Your task to perform on an android device: What is the recent news? Image 0: 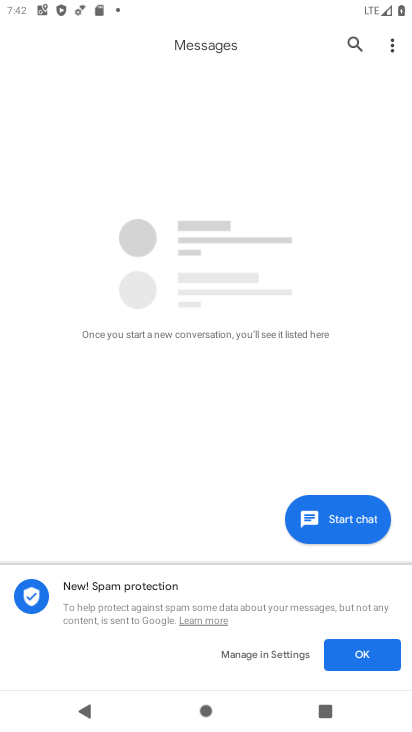
Step 0: press home button
Your task to perform on an android device: What is the recent news? Image 1: 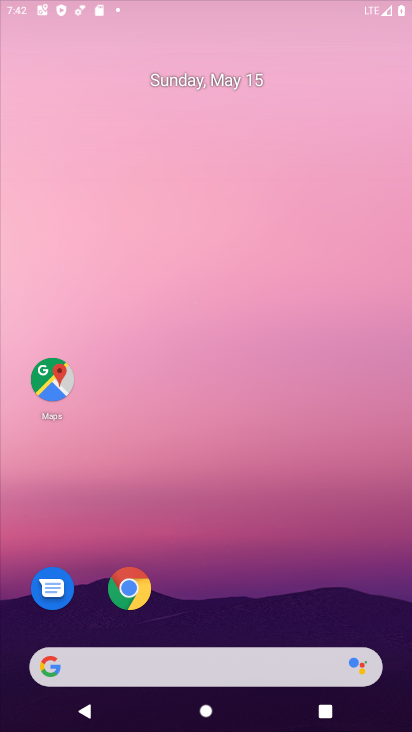
Step 1: drag from (352, 599) to (226, 34)
Your task to perform on an android device: What is the recent news? Image 2: 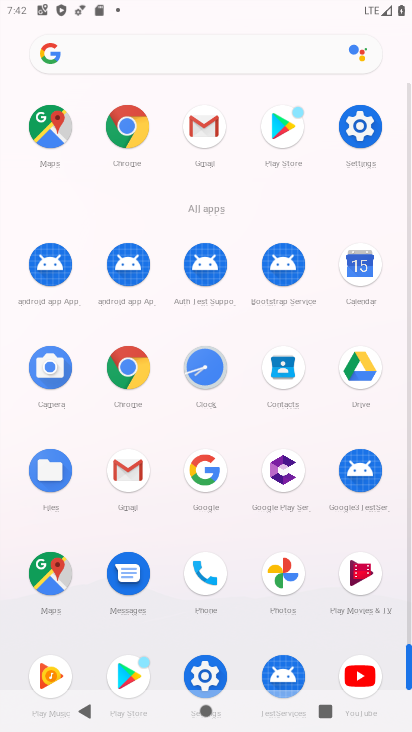
Step 2: click (114, 353)
Your task to perform on an android device: What is the recent news? Image 3: 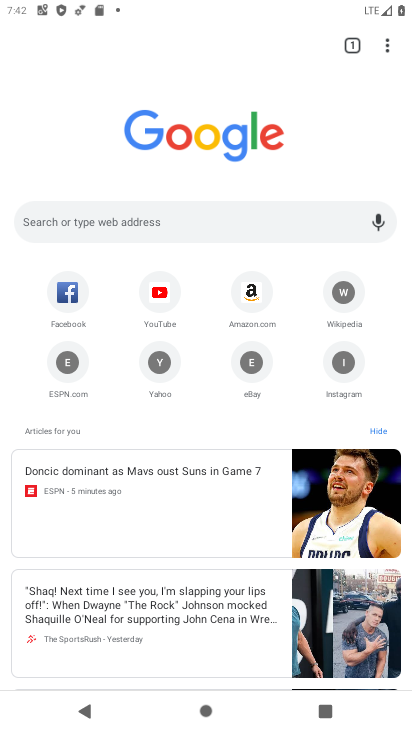
Step 3: click (172, 535)
Your task to perform on an android device: What is the recent news? Image 4: 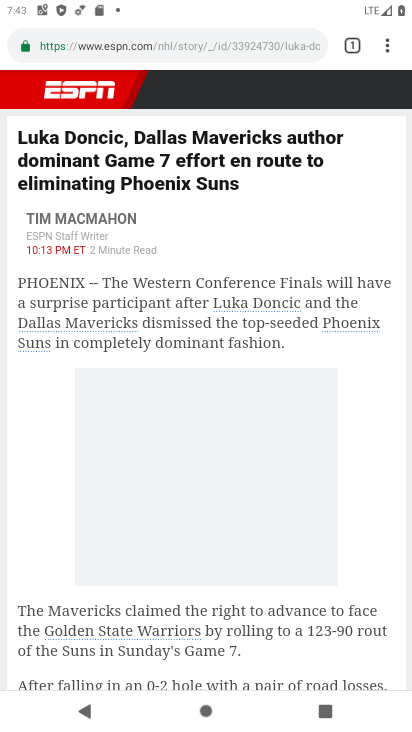
Step 4: task complete